Your task to perform on an android device: install app "Google Duo" Image 0: 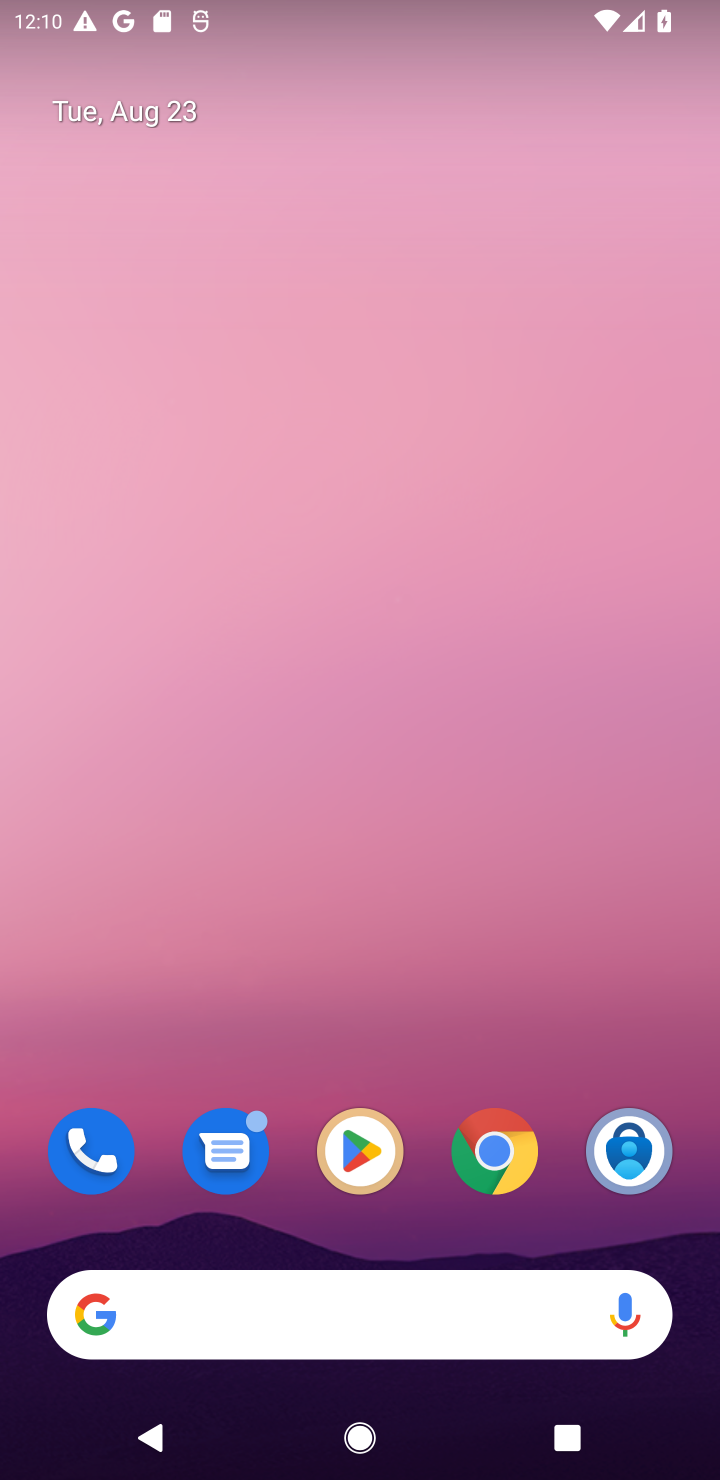
Step 0: click (362, 1125)
Your task to perform on an android device: install app "Google Duo" Image 1: 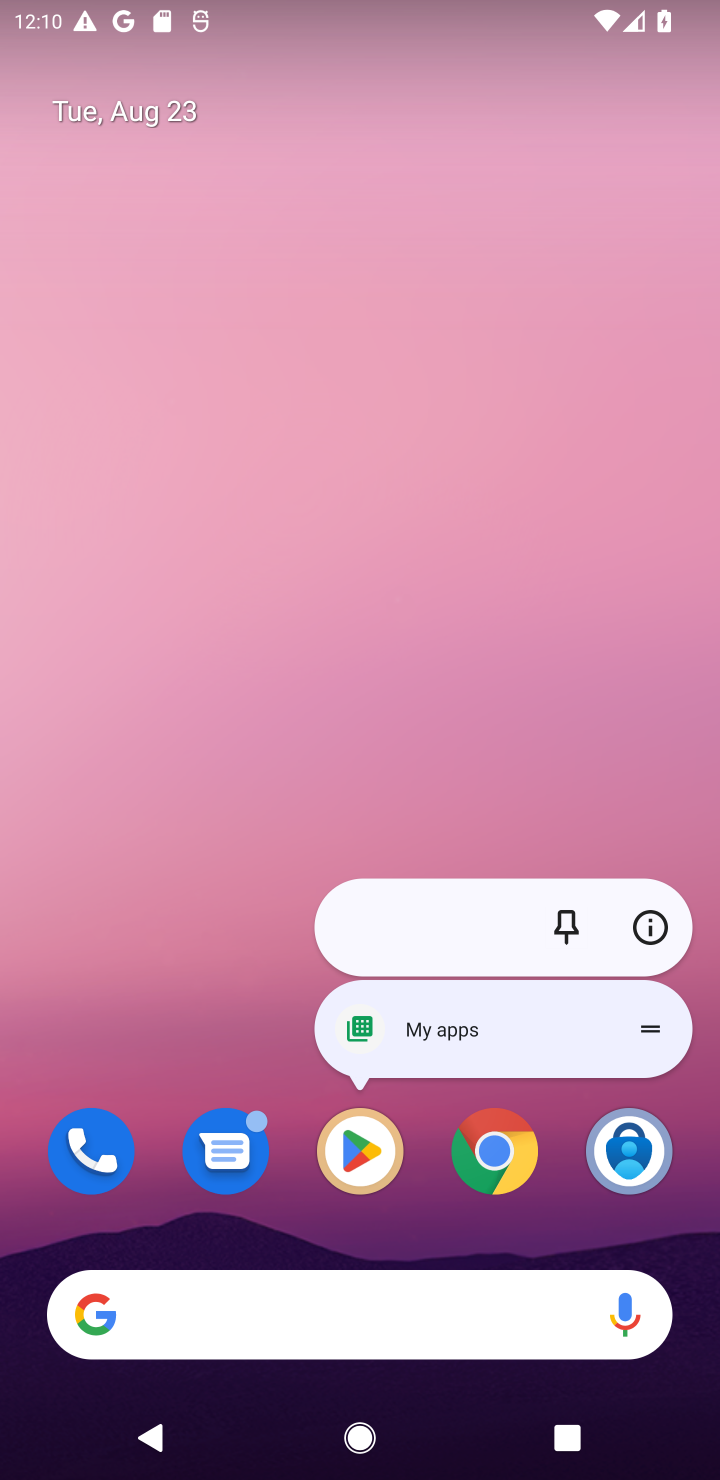
Step 1: click (362, 1125)
Your task to perform on an android device: install app "Google Duo" Image 2: 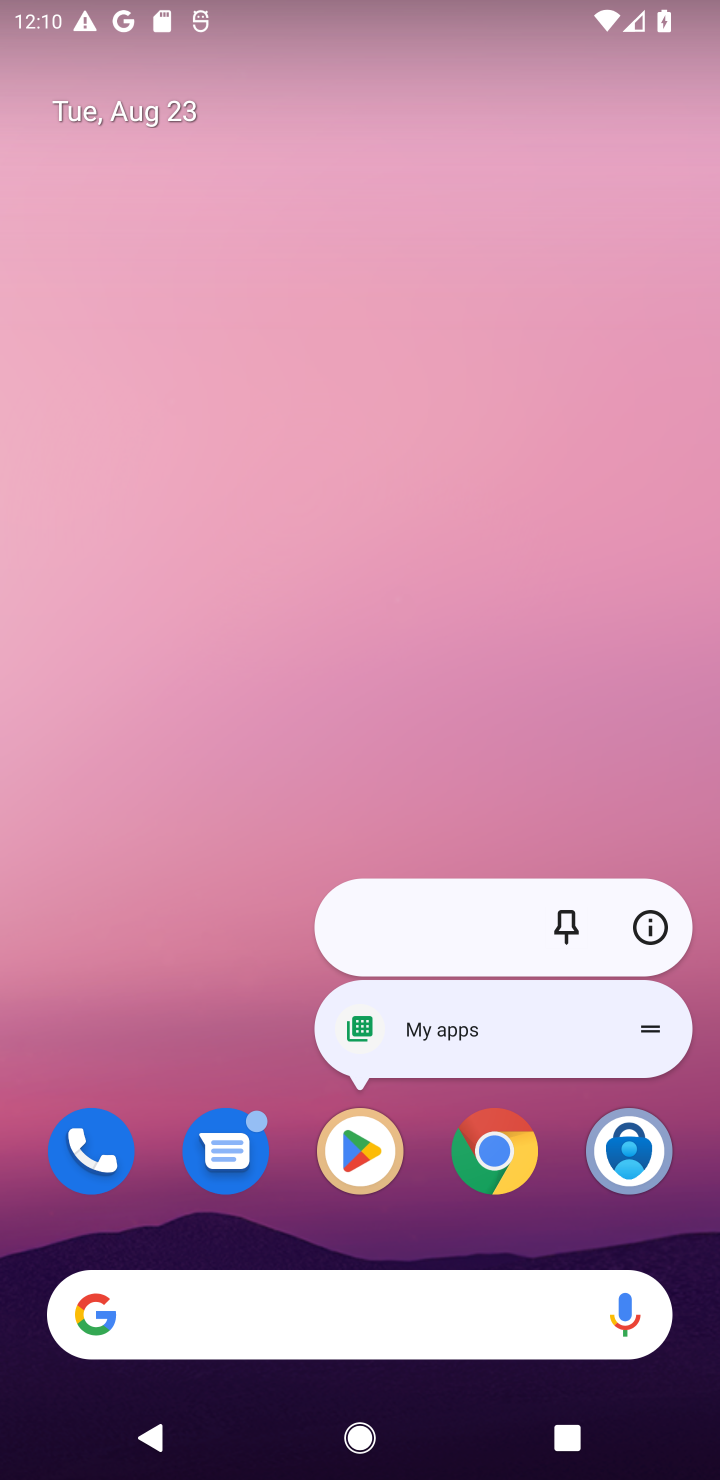
Step 2: click (362, 1128)
Your task to perform on an android device: install app "Google Duo" Image 3: 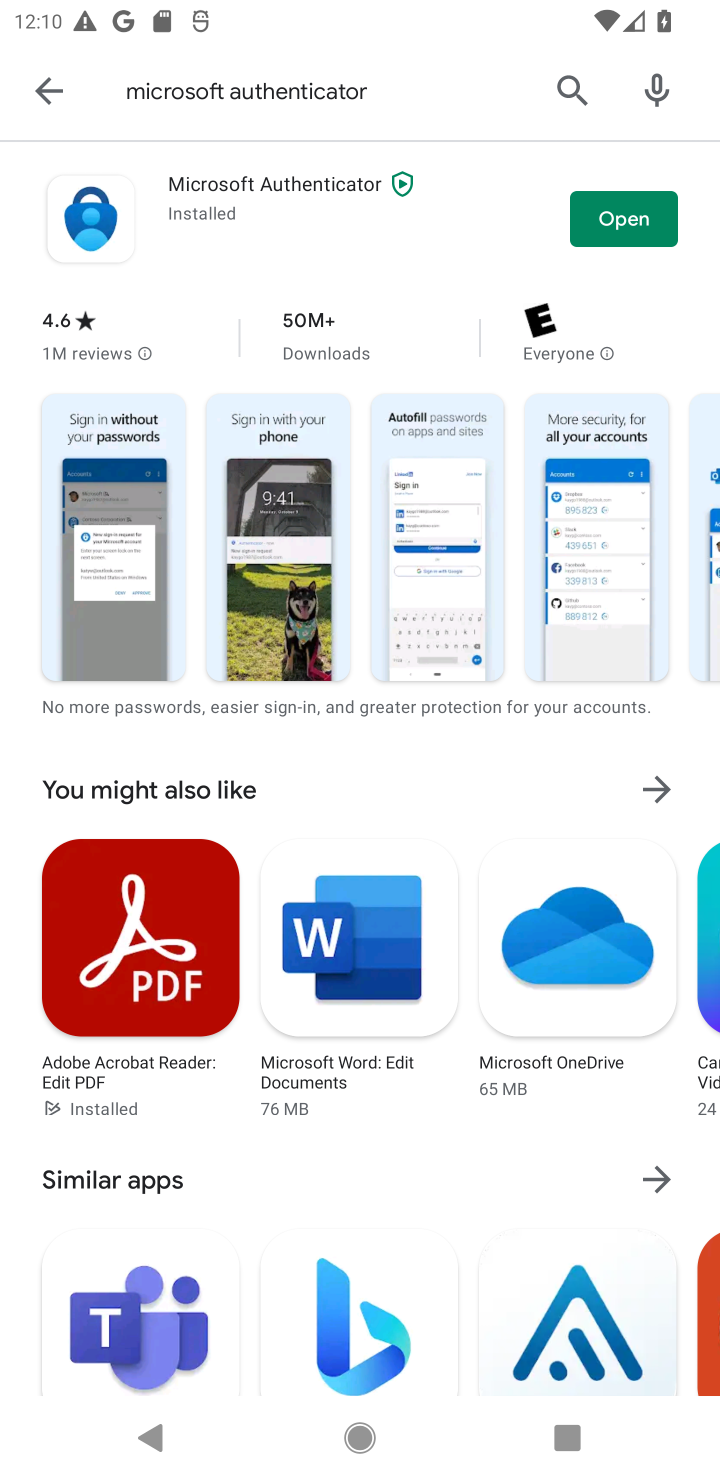
Step 3: click (576, 88)
Your task to perform on an android device: install app "Google Duo" Image 4: 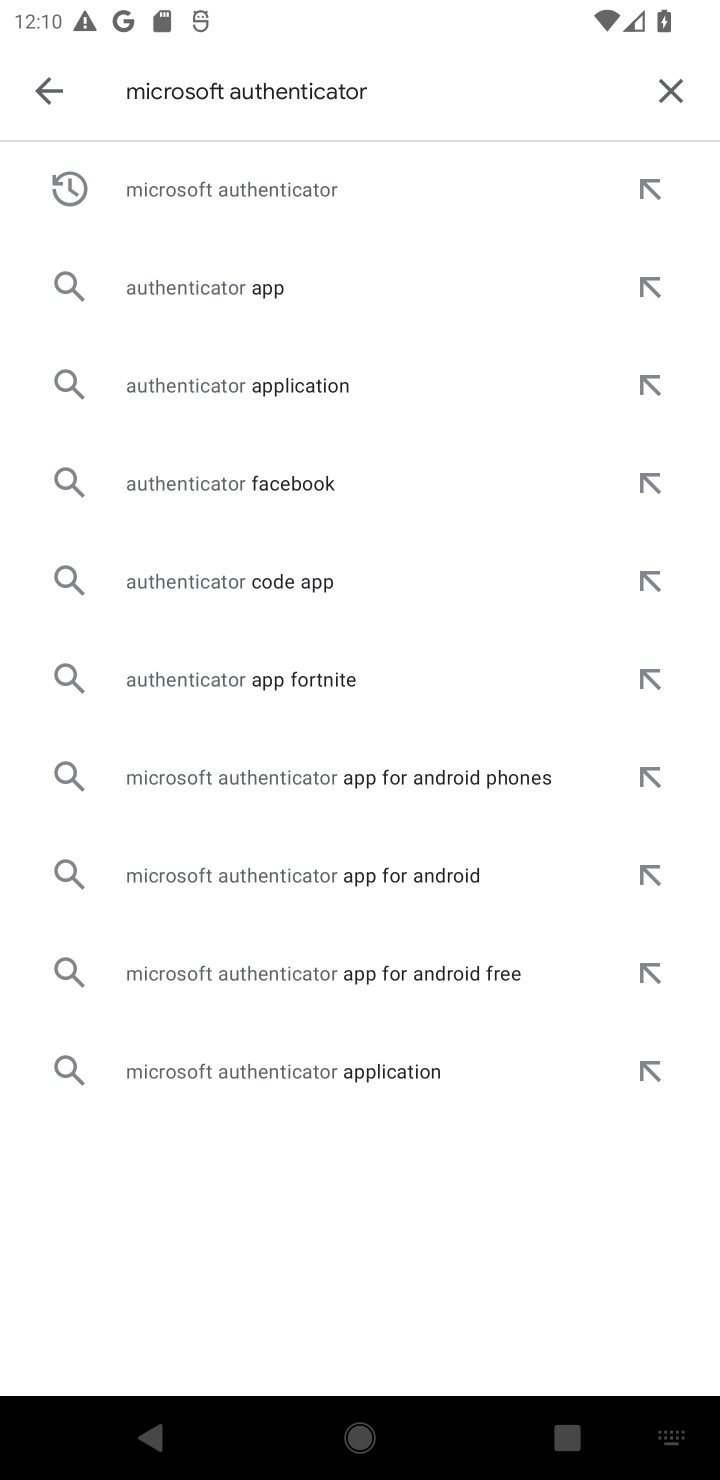
Step 4: click (649, 63)
Your task to perform on an android device: install app "Google Duo" Image 5: 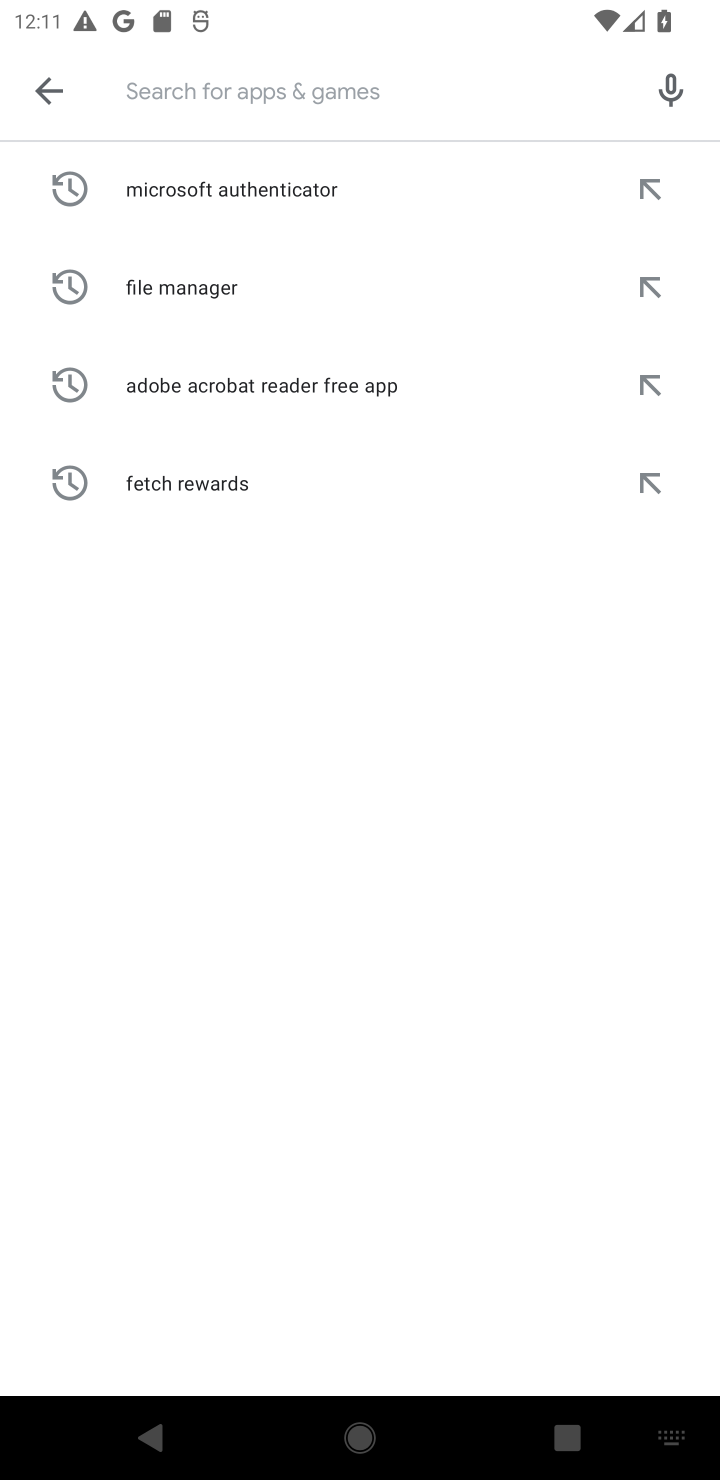
Step 5: type "Google Duo"
Your task to perform on an android device: install app "Google Duo" Image 6: 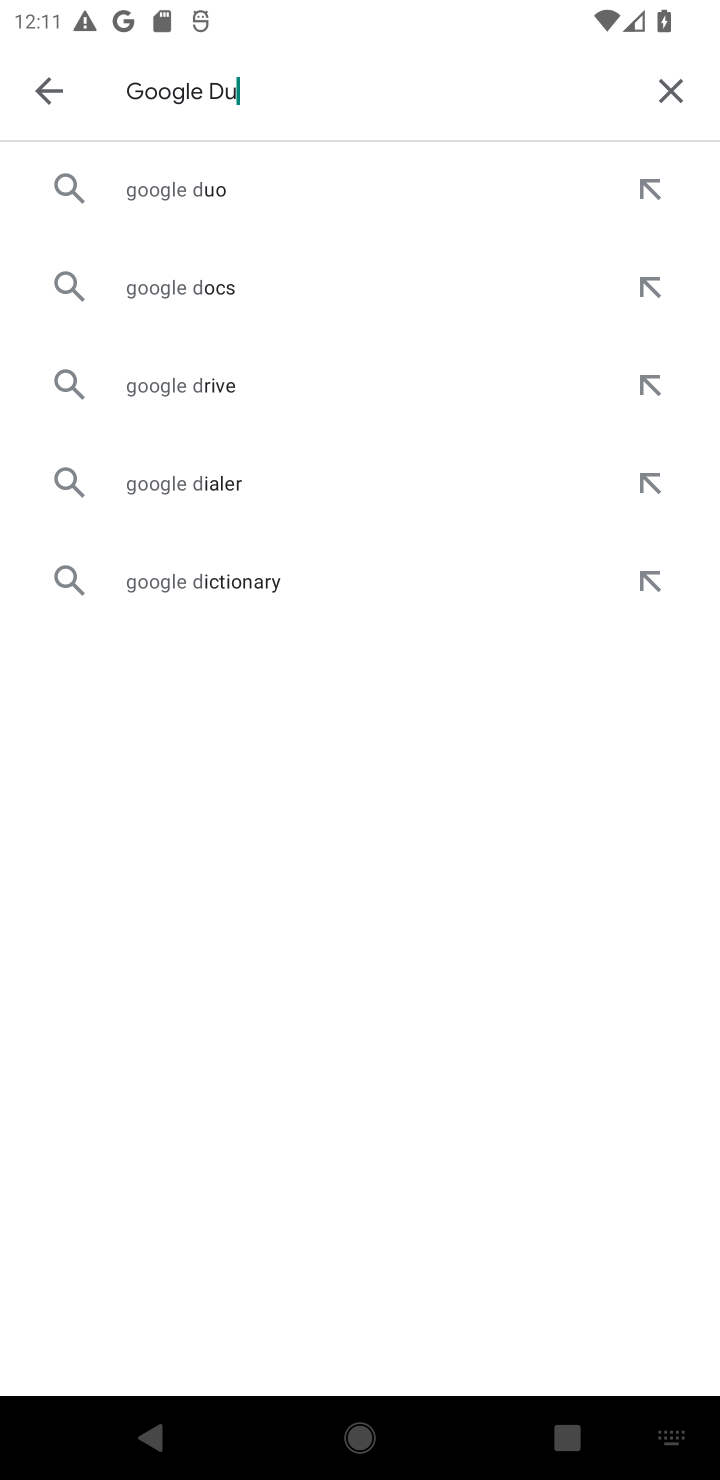
Step 6: type ""
Your task to perform on an android device: install app "Google Duo" Image 7: 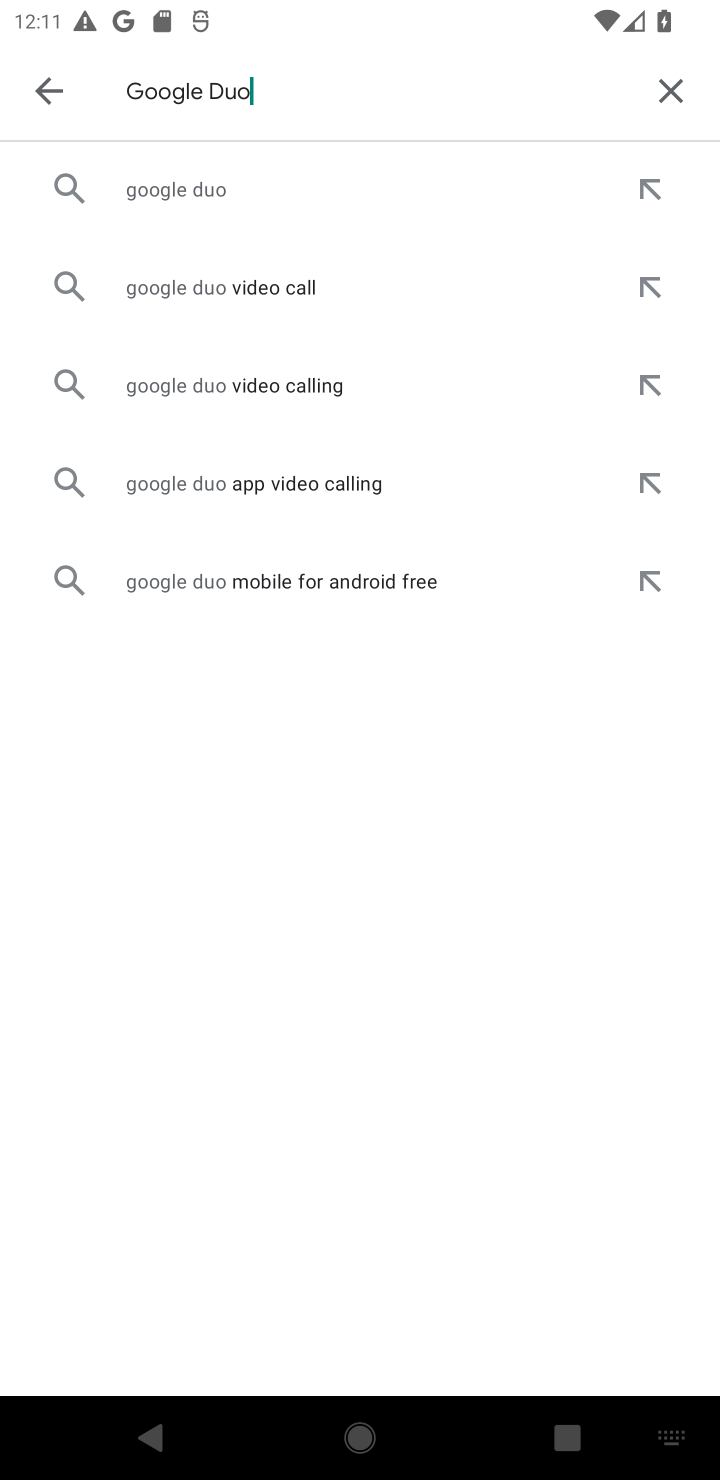
Step 7: click (230, 186)
Your task to perform on an android device: install app "Google Duo" Image 8: 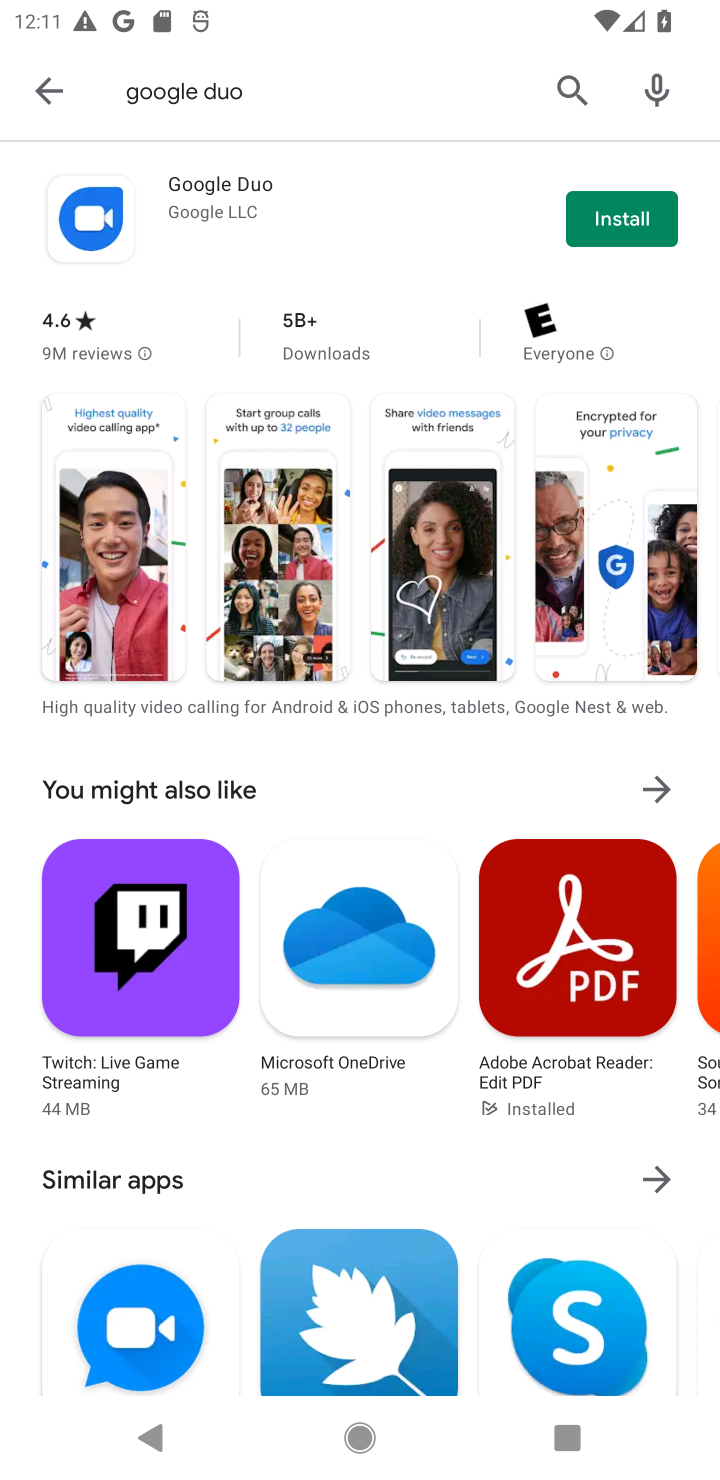
Step 8: click (609, 228)
Your task to perform on an android device: install app "Google Duo" Image 9: 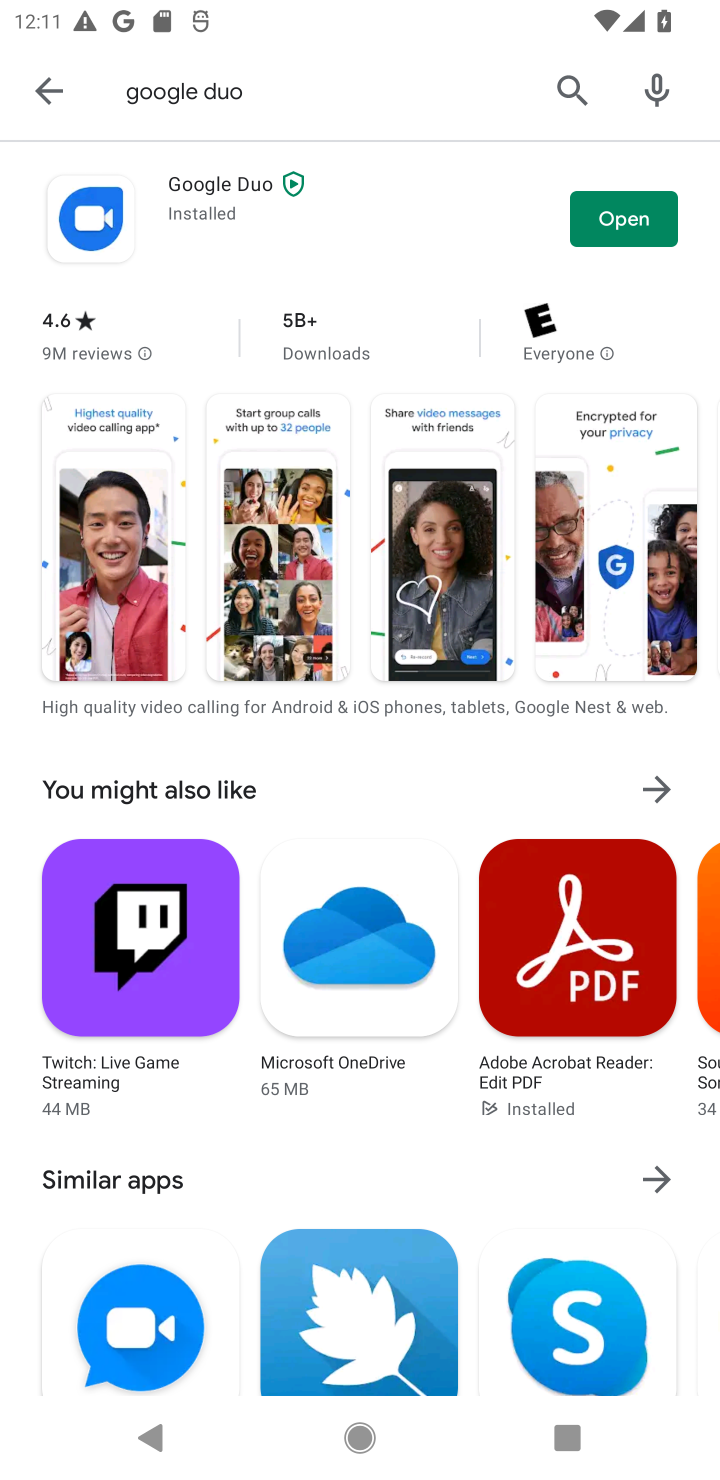
Step 9: task complete